Your task to perform on an android device: empty trash in the gmail app Image 0: 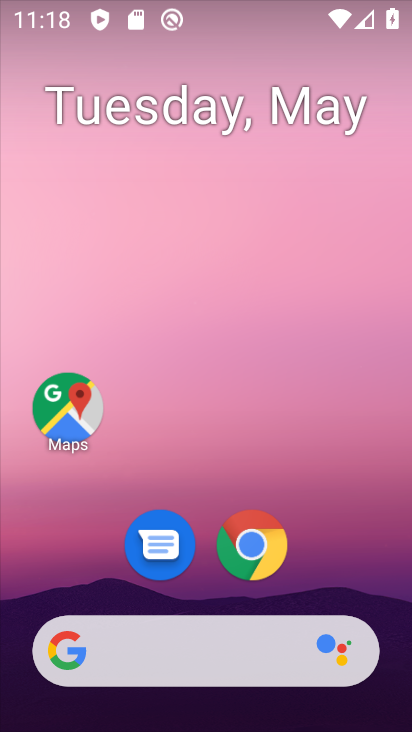
Step 0: drag from (144, 526) to (164, 209)
Your task to perform on an android device: empty trash in the gmail app Image 1: 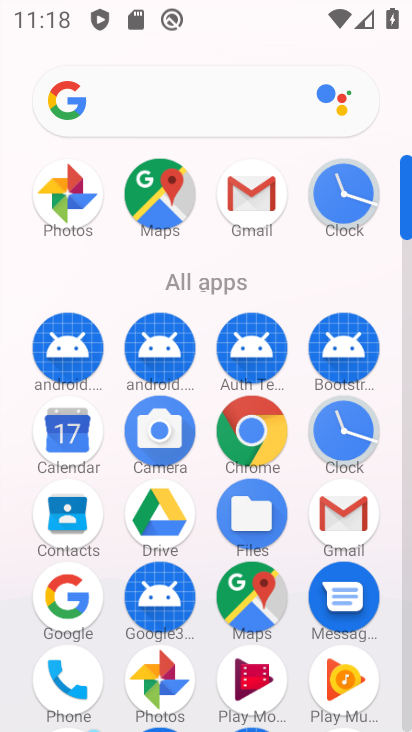
Step 1: click (346, 525)
Your task to perform on an android device: empty trash in the gmail app Image 2: 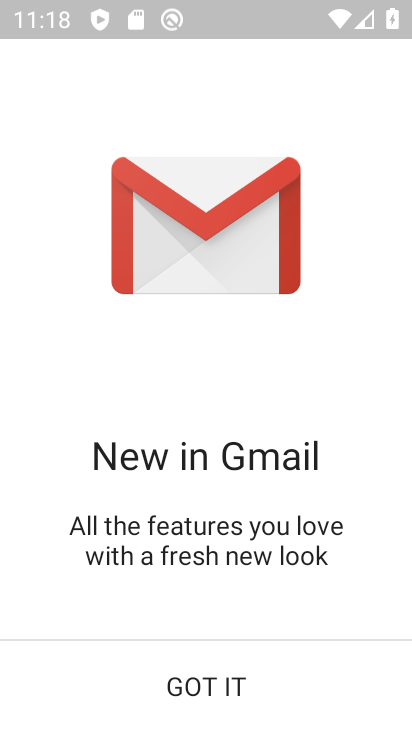
Step 2: click (210, 674)
Your task to perform on an android device: empty trash in the gmail app Image 3: 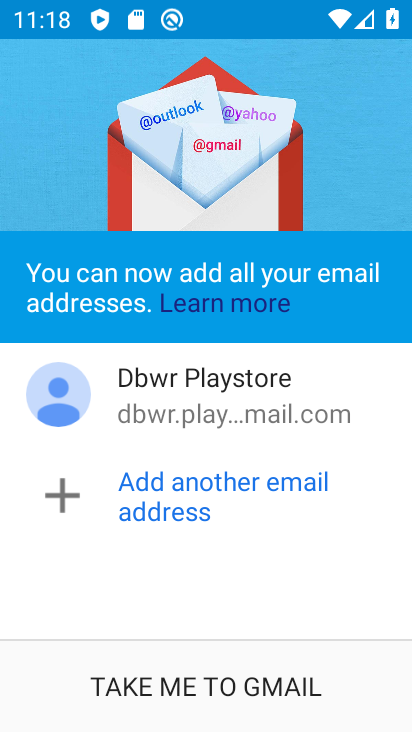
Step 3: click (215, 686)
Your task to perform on an android device: empty trash in the gmail app Image 4: 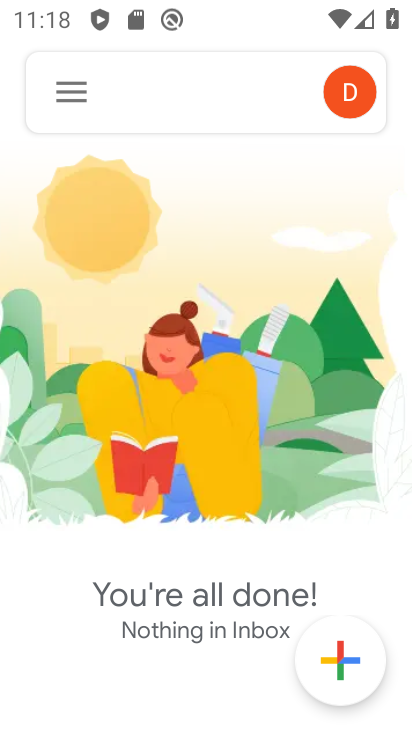
Step 4: click (75, 93)
Your task to perform on an android device: empty trash in the gmail app Image 5: 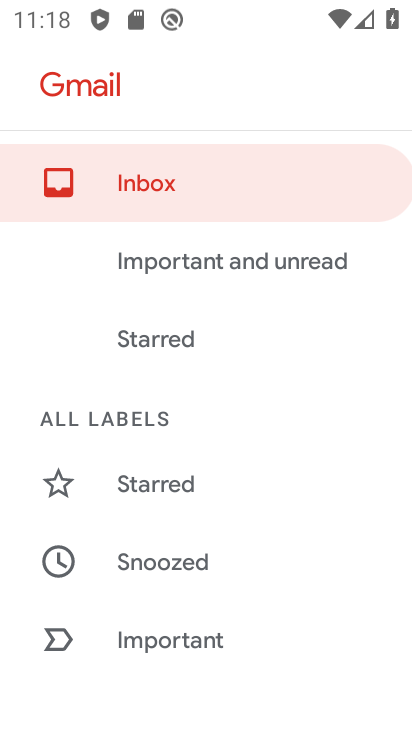
Step 5: drag from (200, 580) to (257, 216)
Your task to perform on an android device: empty trash in the gmail app Image 6: 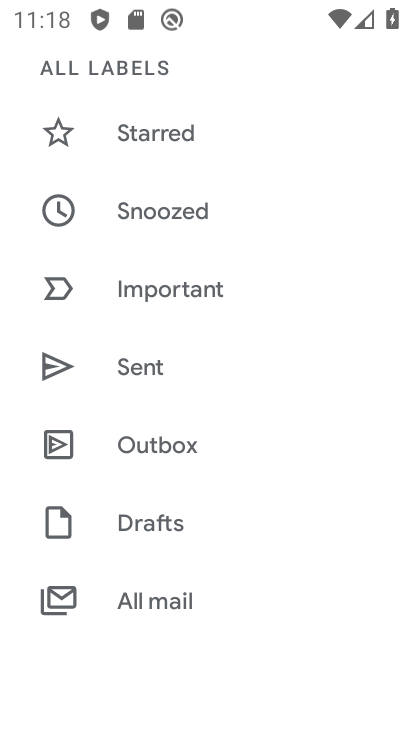
Step 6: drag from (231, 172) to (214, 218)
Your task to perform on an android device: empty trash in the gmail app Image 7: 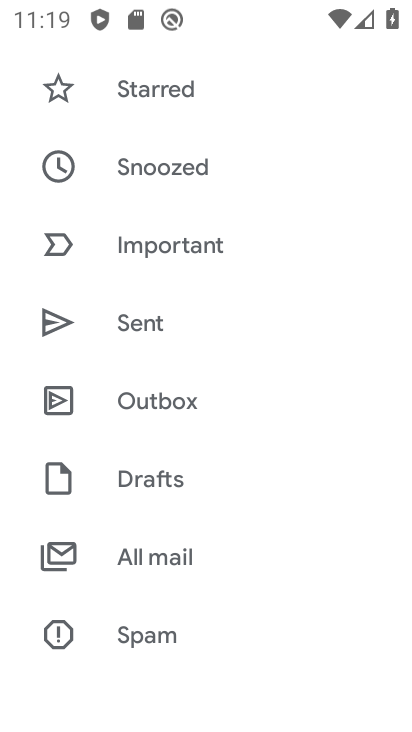
Step 7: drag from (152, 566) to (186, 246)
Your task to perform on an android device: empty trash in the gmail app Image 8: 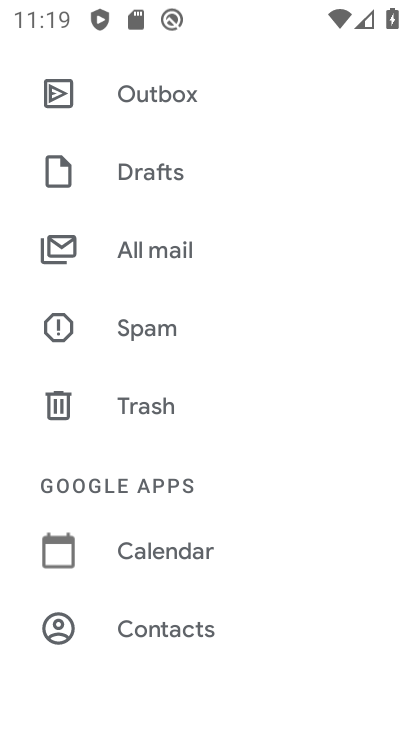
Step 8: click (146, 414)
Your task to perform on an android device: empty trash in the gmail app Image 9: 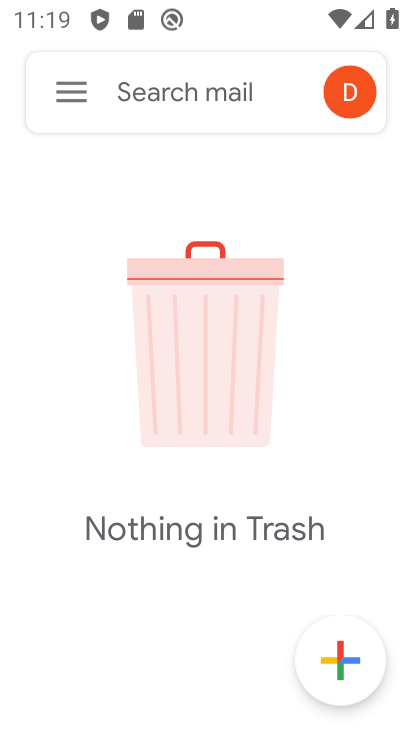
Step 9: task complete